Your task to perform on an android device: set default search engine in the chrome app Image 0: 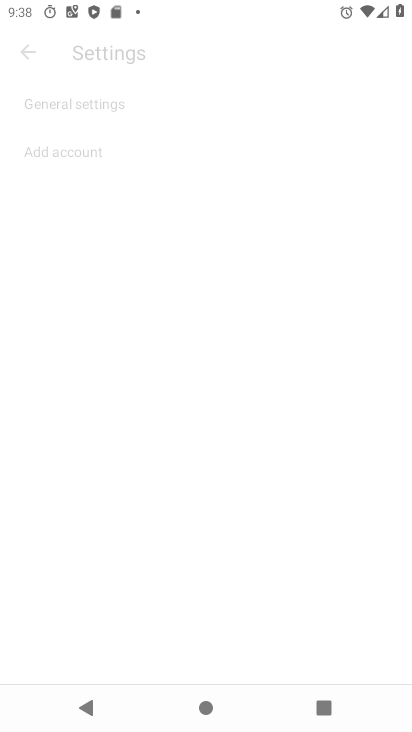
Step 0: drag from (231, 620) to (274, 189)
Your task to perform on an android device: set default search engine in the chrome app Image 1: 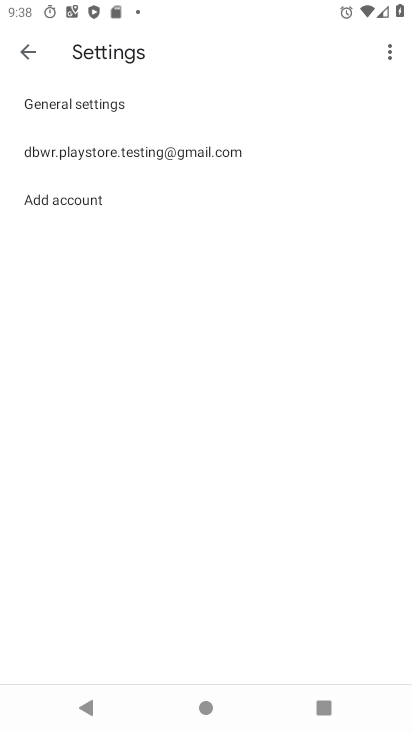
Step 1: click (154, 152)
Your task to perform on an android device: set default search engine in the chrome app Image 2: 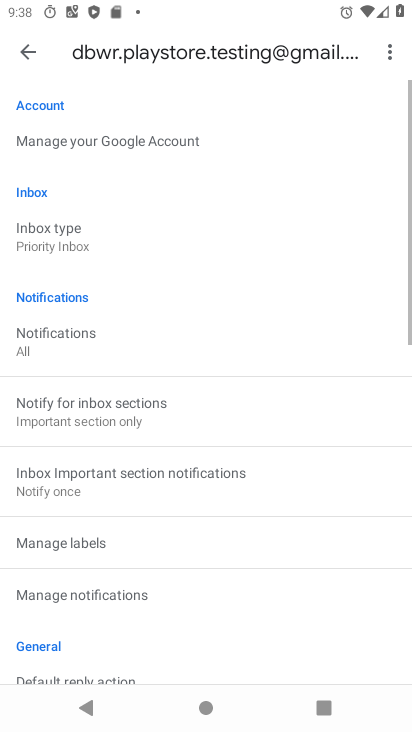
Step 2: drag from (181, 620) to (261, 167)
Your task to perform on an android device: set default search engine in the chrome app Image 3: 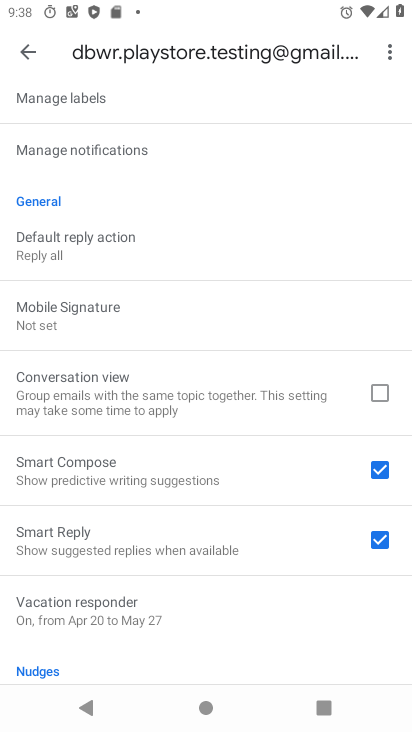
Step 3: drag from (193, 161) to (200, 729)
Your task to perform on an android device: set default search engine in the chrome app Image 4: 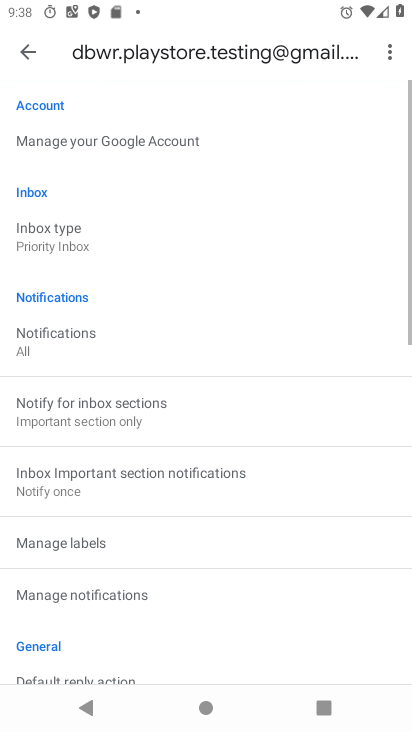
Step 4: drag from (167, 141) to (144, 351)
Your task to perform on an android device: set default search engine in the chrome app Image 5: 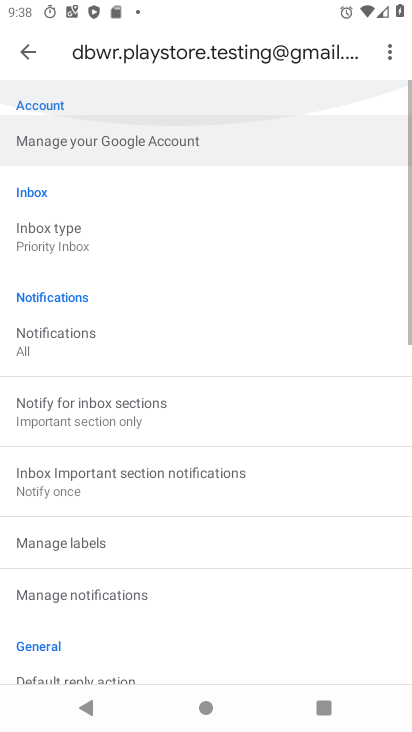
Step 5: click (31, 31)
Your task to perform on an android device: set default search engine in the chrome app Image 6: 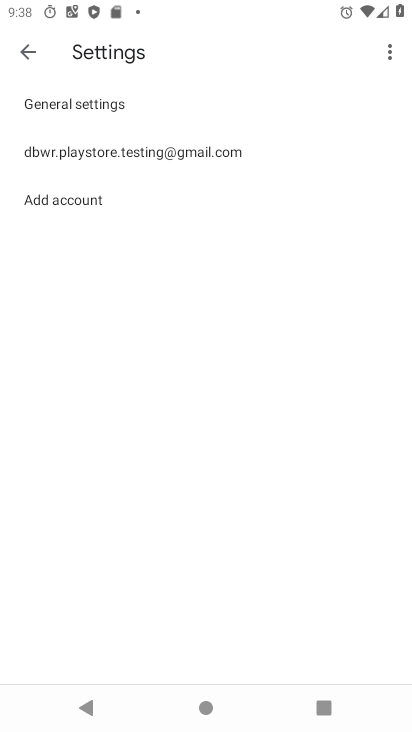
Step 6: click (31, 49)
Your task to perform on an android device: set default search engine in the chrome app Image 7: 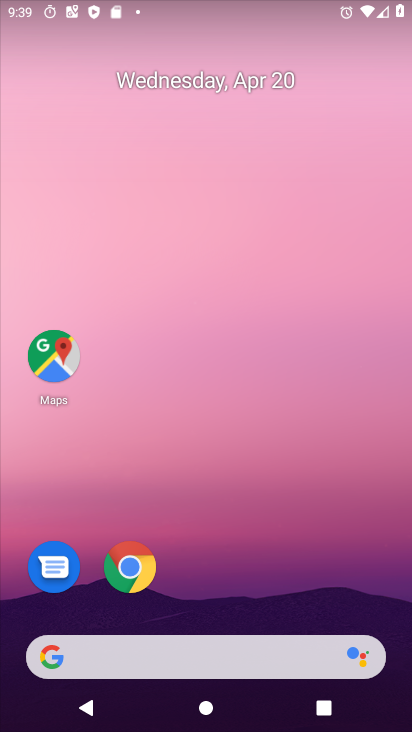
Step 7: click (132, 557)
Your task to perform on an android device: set default search engine in the chrome app Image 8: 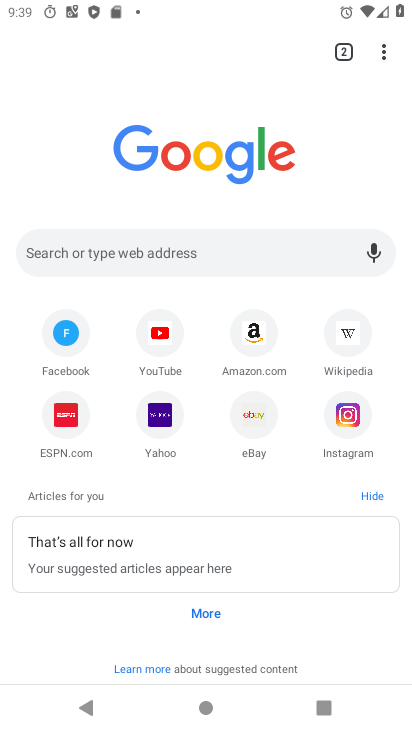
Step 8: click (388, 40)
Your task to perform on an android device: set default search engine in the chrome app Image 9: 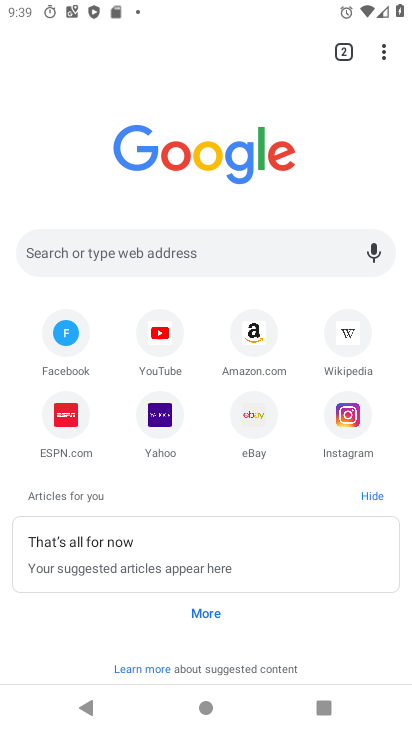
Step 9: click (387, 42)
Your task to perform on an android device: set default search engine in the chrome app Image 10: 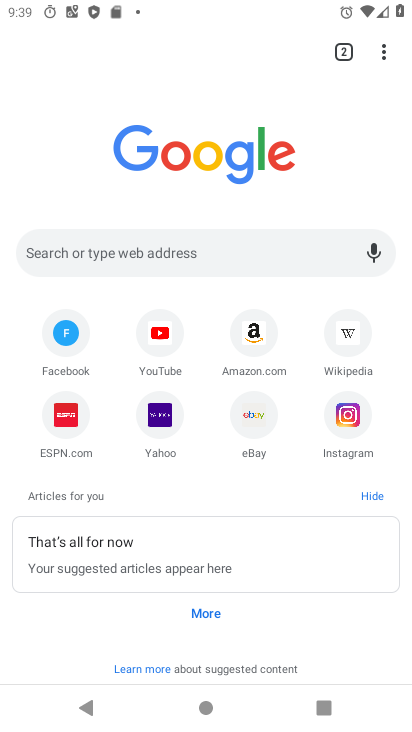
Step 10: click (377, 48)
Your task to perform on an android device: set default search engine in the chrome app Image 11: 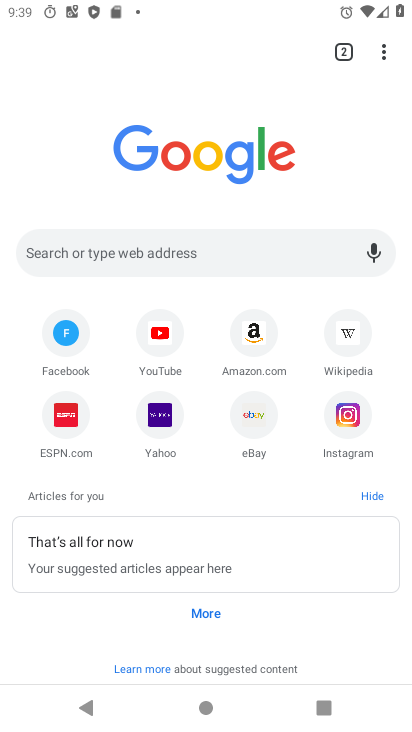
Step 11: click (375, 48)
Your task to perform on an android device: set default search engine in the chrome app Image 12: 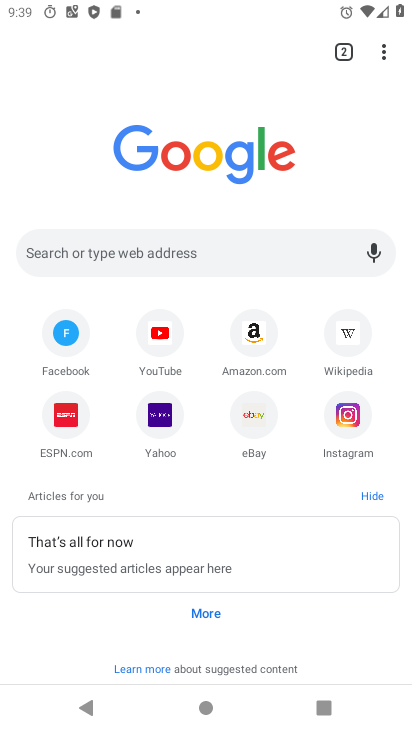
Step 12: click (372, 45)
Your task to perform on an android device: set default search engine in the chrome app Image 13: 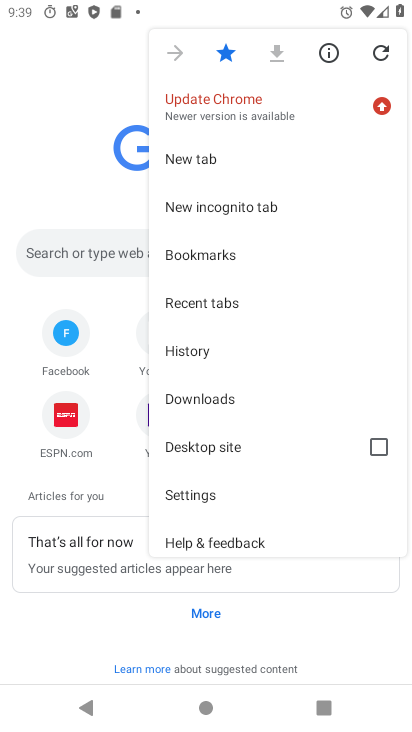
Step 13: click (201, 482)
Your task to perform on an android device: set default search engine in the chrome app Image 14: 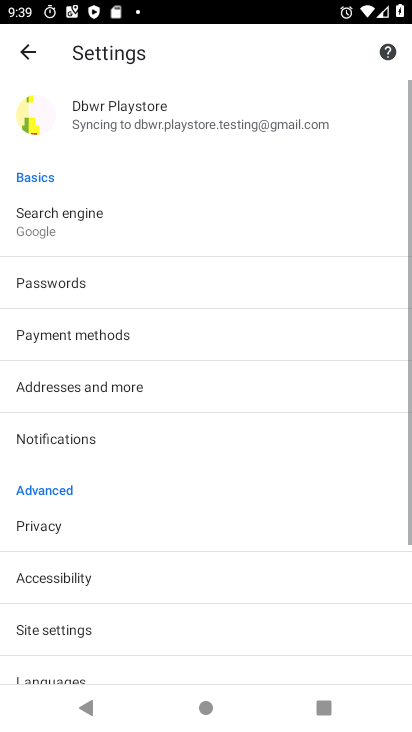
Step 14: click (103, 108)
Your task to perform on an android device: set default search engine in the chrome app Image 15: 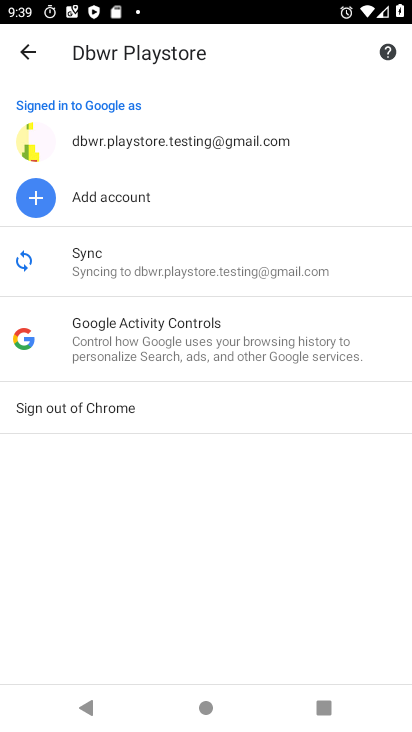
Step 15: press back button
Your task to perform on an android device: set default search engine in the chrome app Image 16: 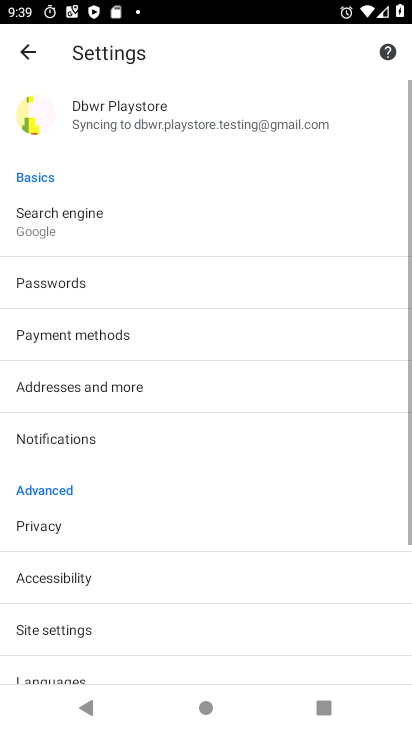
Step 16: click (106, 215)
Your task to perform on an android device: set default search engine in the chrome app Image 17: 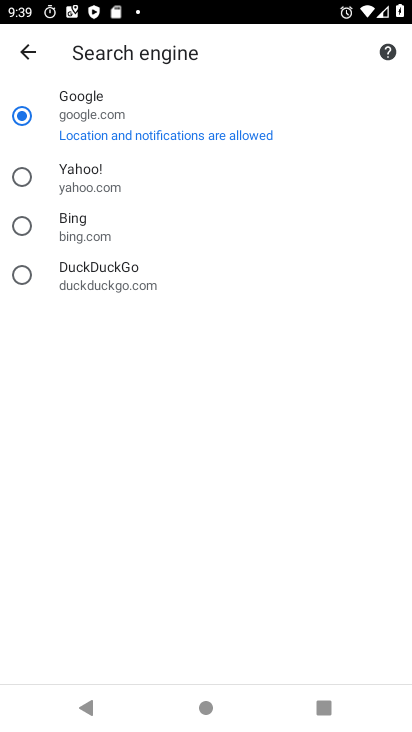
Step 17: click (100, 182)
Your task to perform on an android device: set default search engine in the chrome app Image 18: 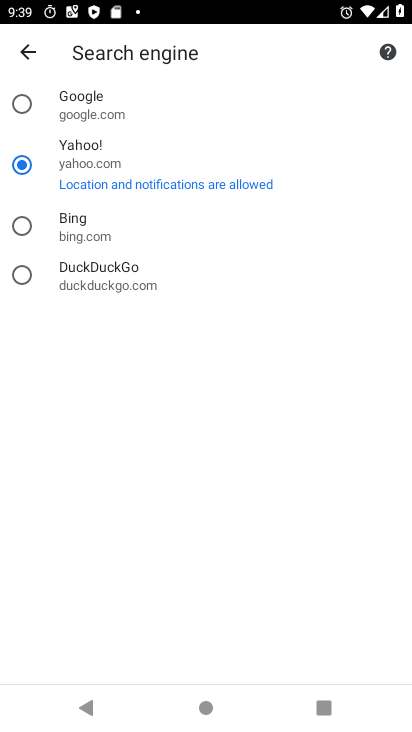
Step 18: task complete